Your task to perform on an android device: toggle data saver in the chrome app Image 0: 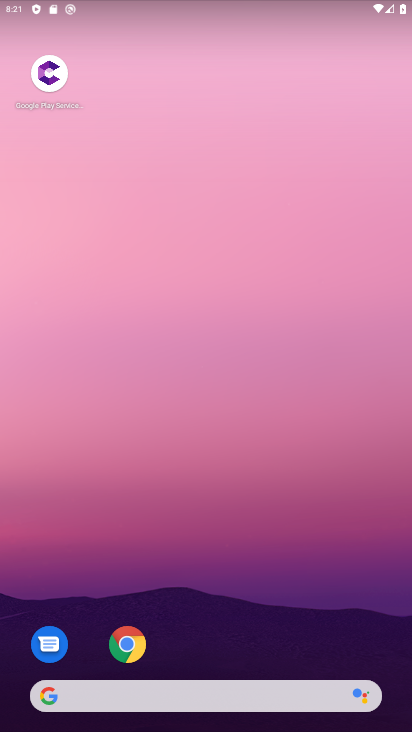
Step 0: click (120, 655)
Your task to perform on an android device: toggle data saver in the chrome app Image 1: 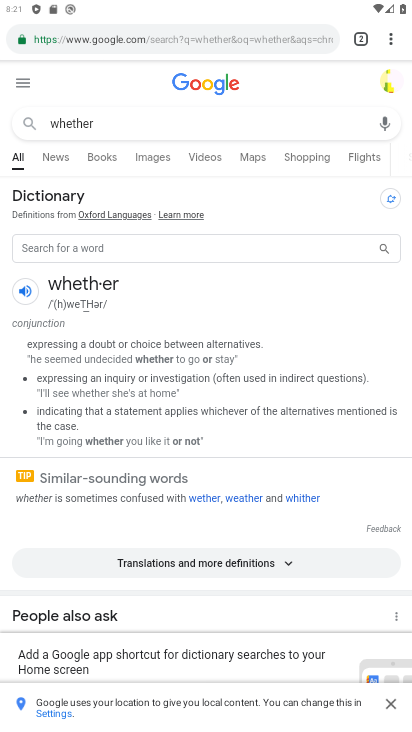
Step 1: click (389, 36)
Your task to perform on an android device: toggle data saver in the chrome app Image 2: 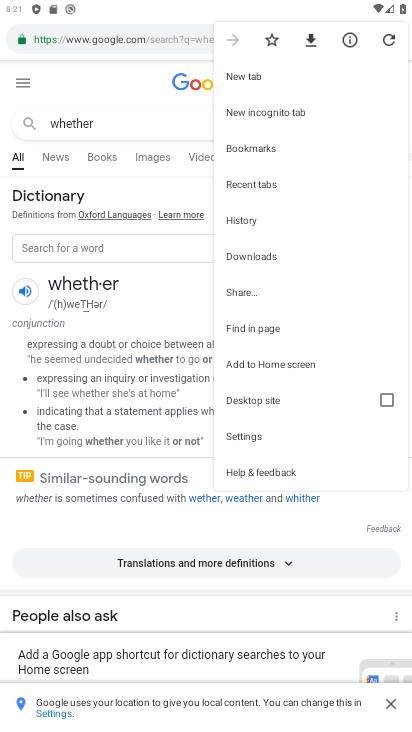
Step 2: click (254, 429)
Your task to perform on an android device: toggle data saver in the chrome app Image 3: 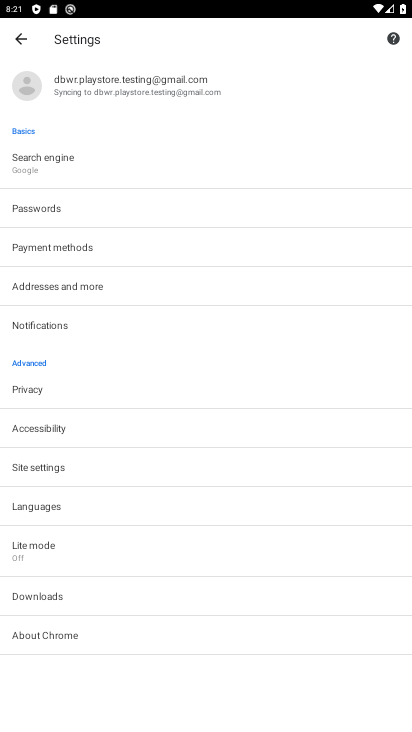
Step 3: click (50, 552)
Your task to perform on an android device: toggle data saver in the chrome app Image 4: 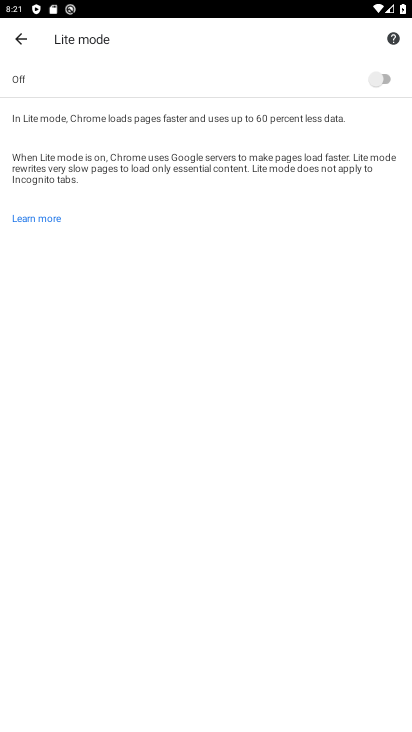
Step 4: click (50, 552)
Your task to perform on an android device: toggle data saver in the chrome app Image 5: 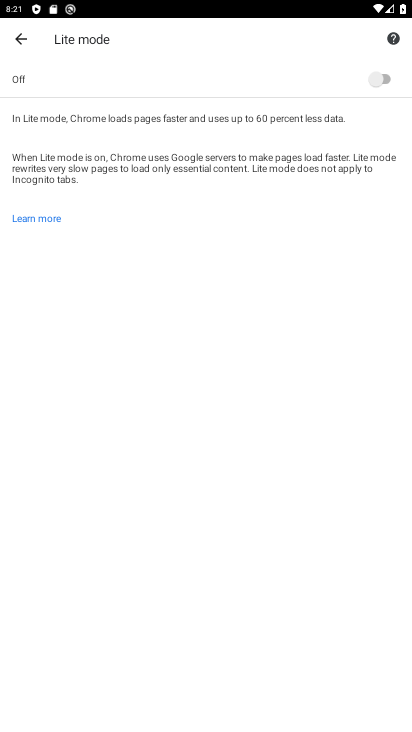
Step 5: click (364, 105)
Your task to perform on an android device: toggle data saver in the chrome app Image 6: 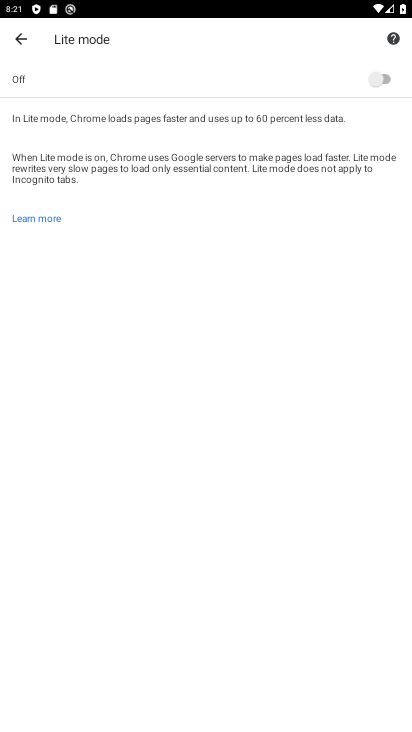
Step 6: click (388, 80)
Your task to perform on an android device: toggle data saver in the chrome app Image 7: 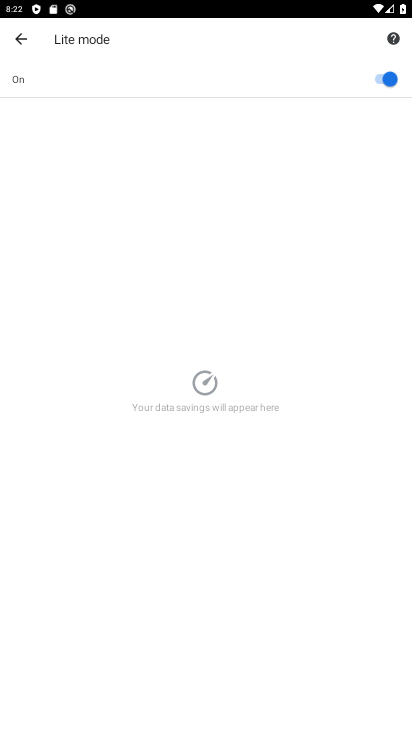
Step 7: task complete